Your task to perform on an android device: Go to calendar. Show me events next week Image 0: 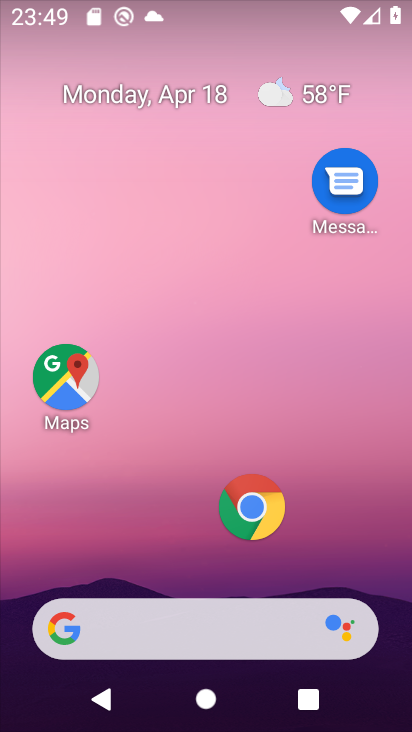
Step 0: drag from (166, 559) to (248, 18)
Your task to perform on an android device: Go to calendar. Show me events next week Image 1: 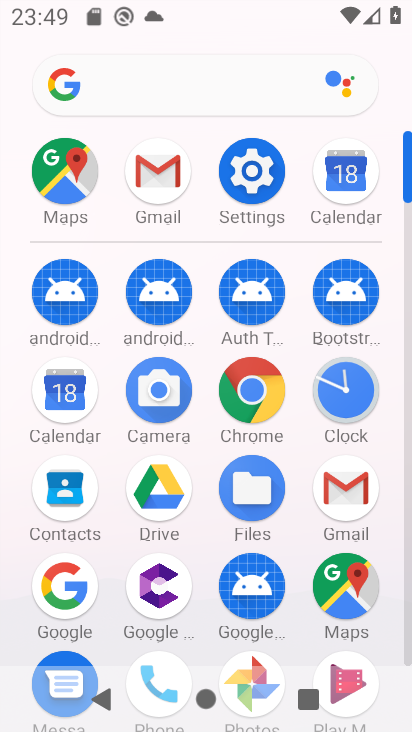
Step 1: click (67, 411)
Your task to perform on an android device: Go to calendar. Show me events next week Image 2: 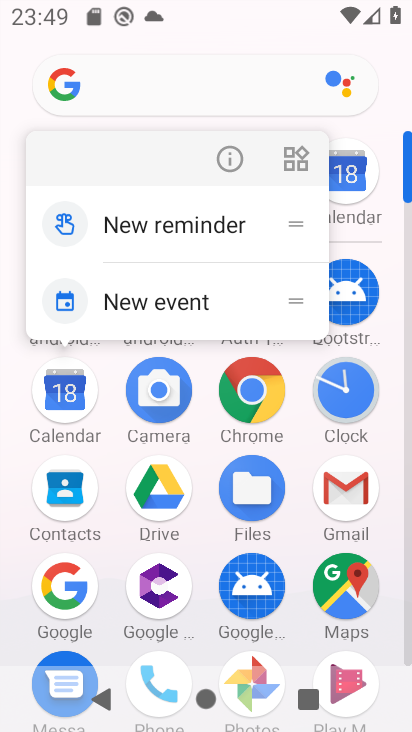
Step 2: click (64, 417)
Your task to perform on an android device: Go to calendar. Show me events next week Image 3: 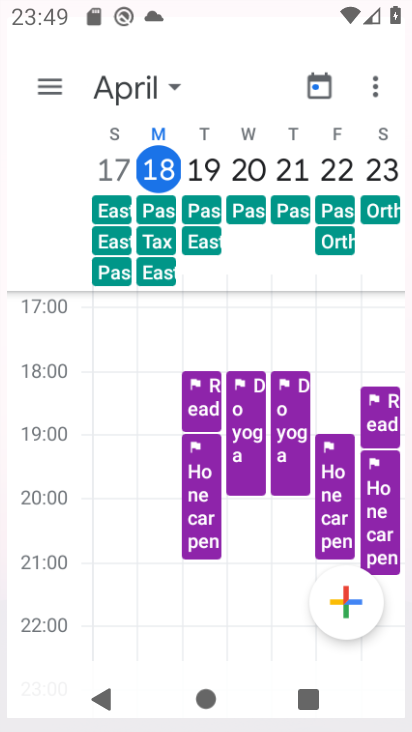
Step 3: click (66, 395)
Your task to perform on an android device: Go to calendar. Show me events next week Image 4: 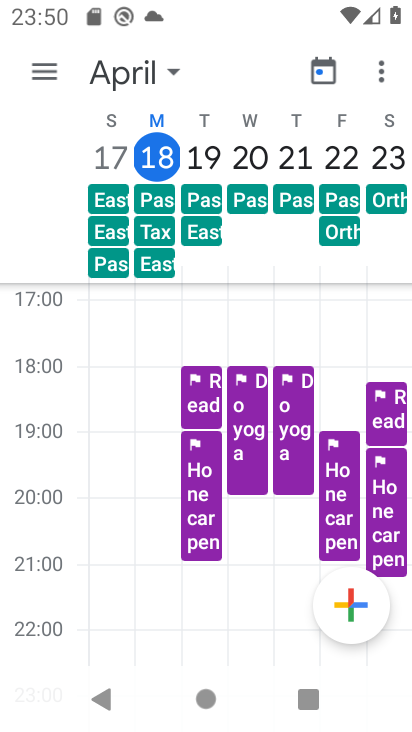
Step 4: drag from (284, 218) to (31, 210)
Your task to perform on an android device: Go to calendar. Show me events next week Image 5: 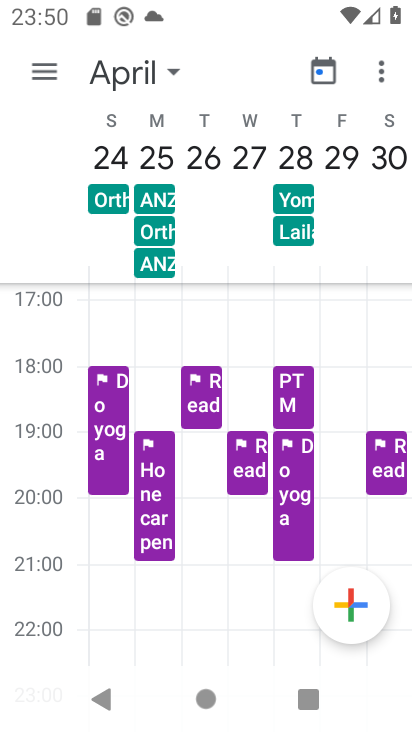
Step 5: click (39, 72)
Your task to perform on an android device: Go to calendar. Show me events next week Image 6: 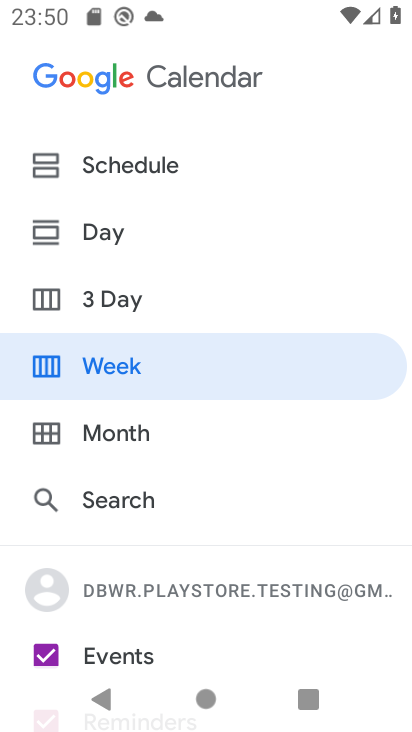
Step 6: drag from (67, 564) to (170, 155)
Your task to perform on an android device: Go to calendar. Show me events next week Image 7: 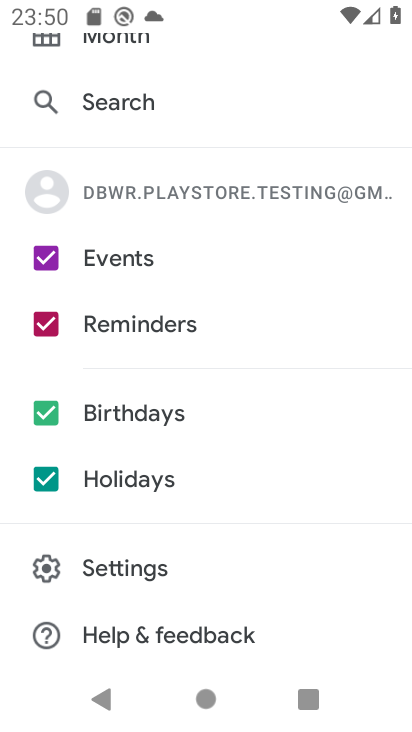
Step 7: click (44, 325)
Your task to perform on an android device: Go to calendar. Show me events next week Image 8: 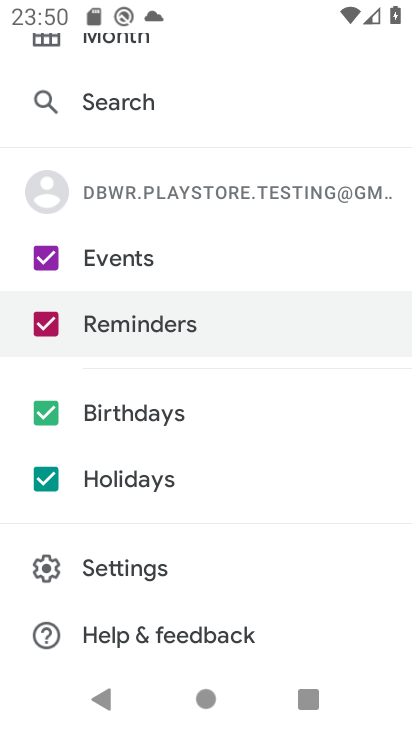
Step 8: click (45, 415)
Your task to perform on an android device: Go to calendar. Show me events next week Image 9: 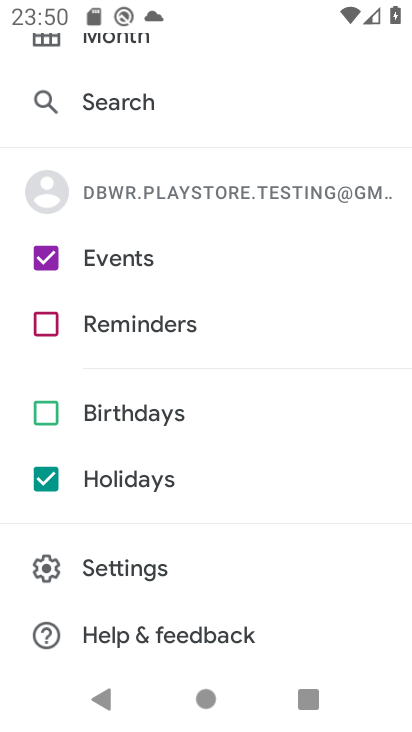
Step 9: click (43, 480)
Your task to perform on an android device: Go to calendar. Show me events next week Image 10: 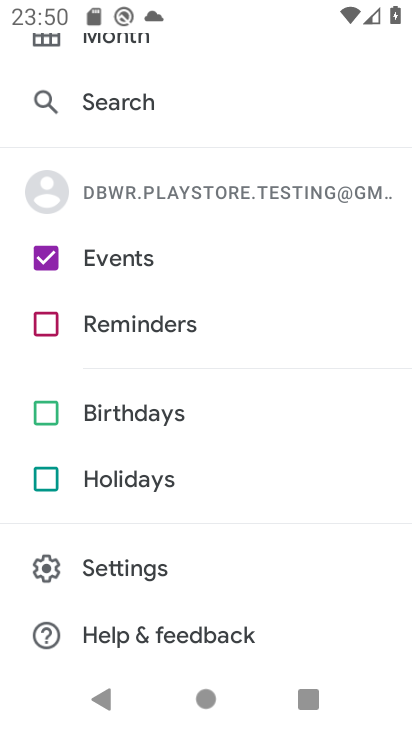
Step 10: drag from (139, 122) to (76, 522)
Your task to perform on an android device: Go to calendar. Show me events next week Image 11: 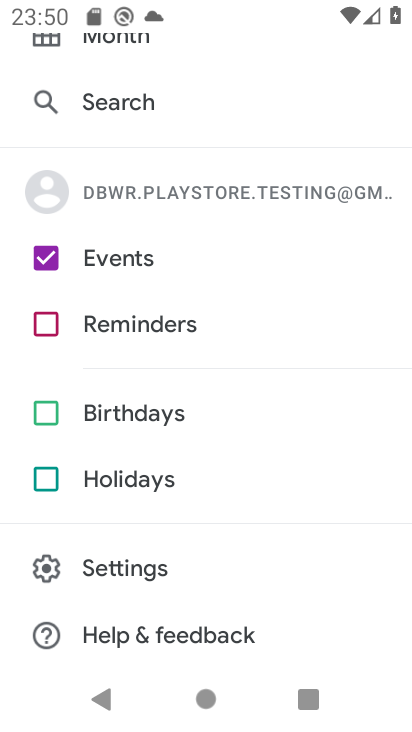
Step 11: drag from (203, 133) to (175, 439)
Your task to perform on an android device: Go to calendar. Show me events next week Image 12: 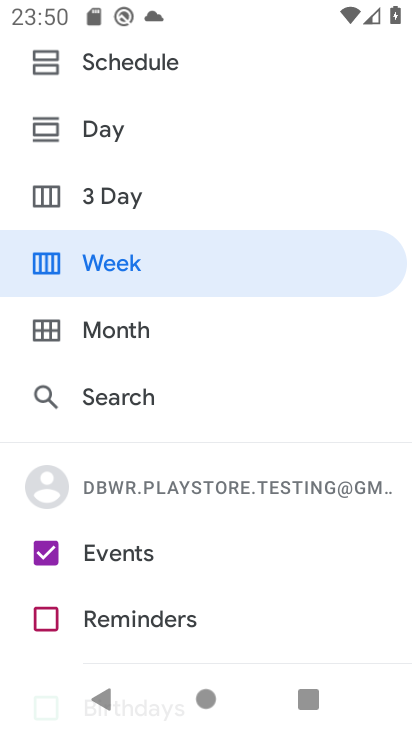
Step 12: click (140, 255)
Your task to perform on an android device: Go to calendar. Show me events next week Image 13: 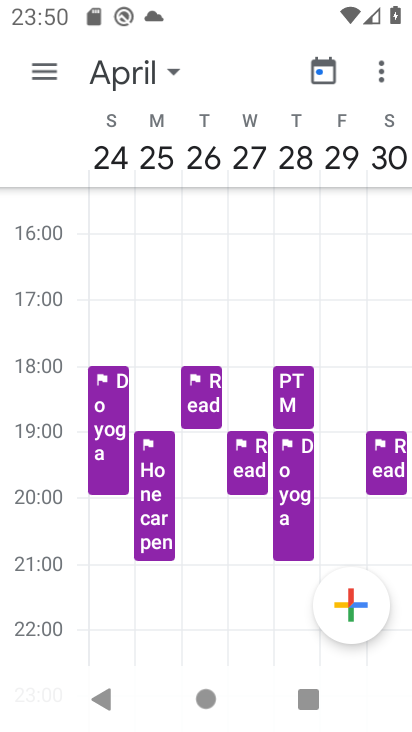
Step 13: task complete